Your task to perform on an android device: move an email to a new category in the gmail app Image 0: 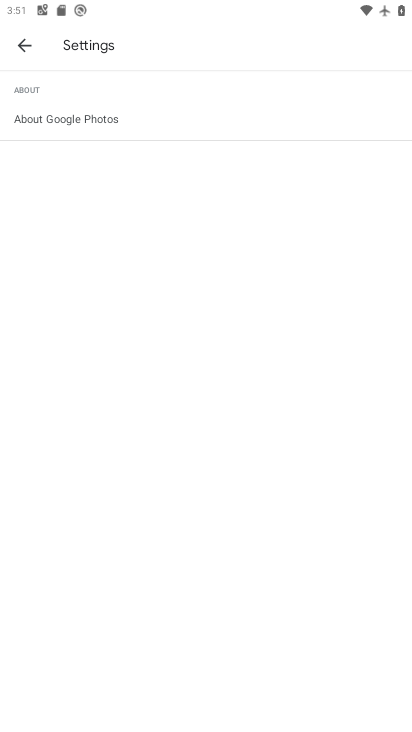
Step 0: press home button
Your task to perform on an android device: move an email to a new category in the gmail app Image 1: 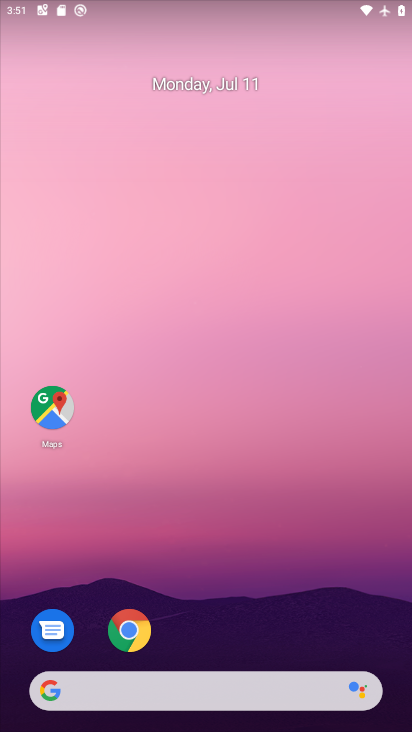
Step 1: drag from (302, 611) to (242, 119)
Your task to perform on an android device: move an email to a new category in the gmail app Image 2: 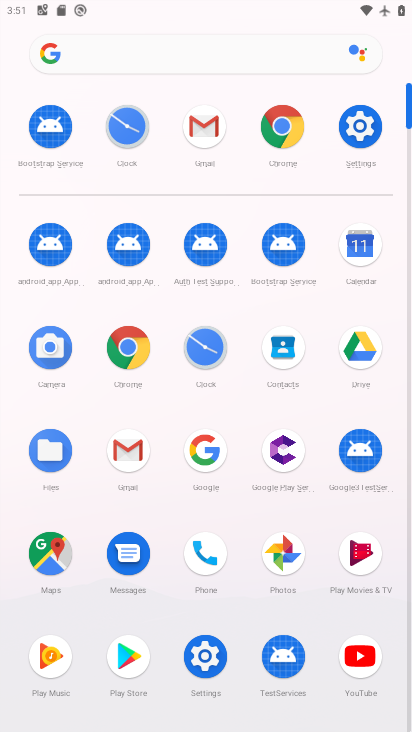
Step 2: click (220, 147)
Your task to perform on an android device: move an email to a new category in the gmail app Image 3: 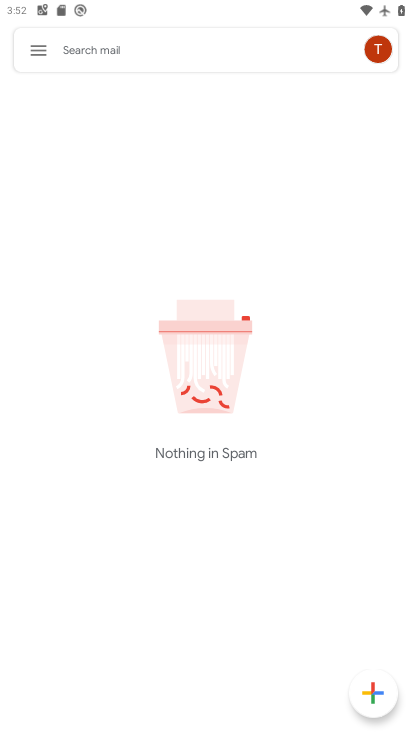
Step 3: click (41, 46)
Your task to perform on an android device: move an email to a new category in the gmail app Image 4: 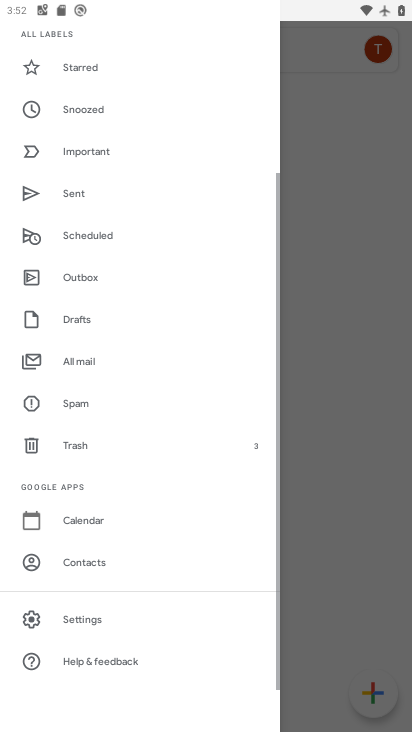
Step 4: click (37, 52)
Your task to perform on an android device: move an email to a new category in the gmail app Image 5: 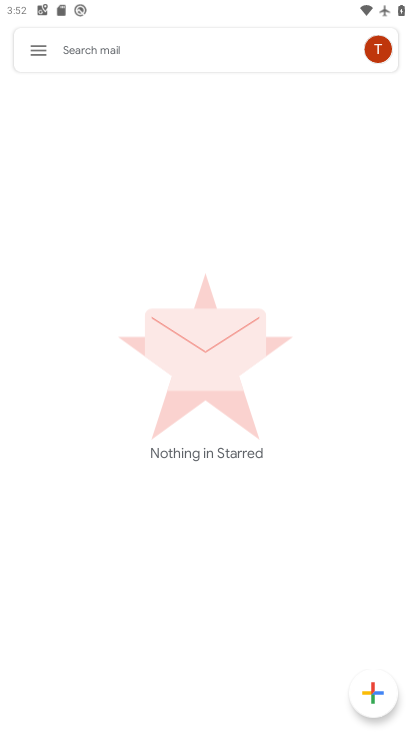
Step 5: task complete